Your task to perform on an android device: What is the news today? Image 0: 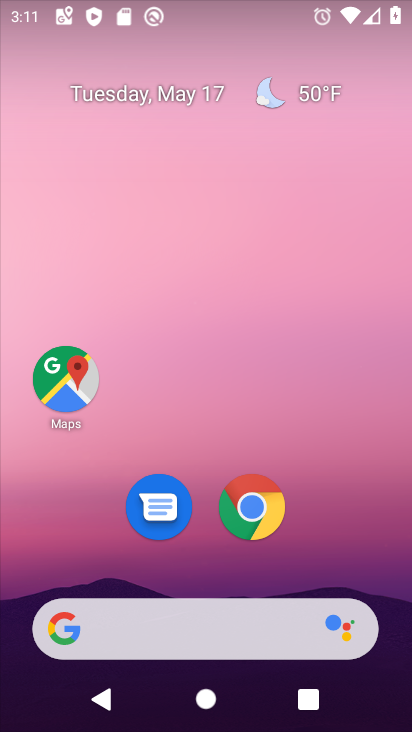
Step 0: drag from (341, 522) to (206, 18)
Your task to perform on an android device: What is the news today? Image 1: 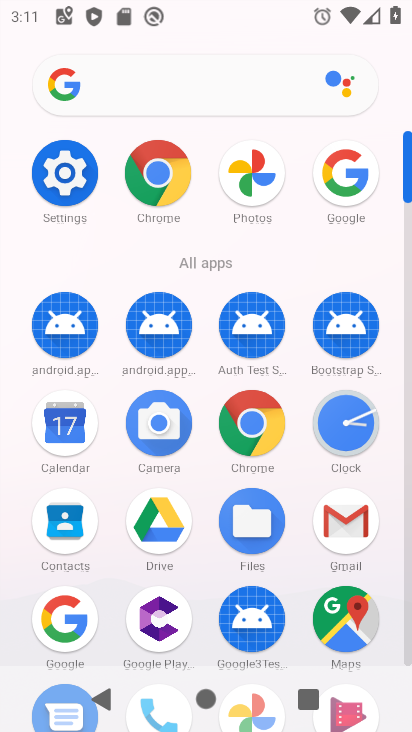
Step 1: click (68, 614)
Your task to perform on an android device: What is the news today? Image 2: 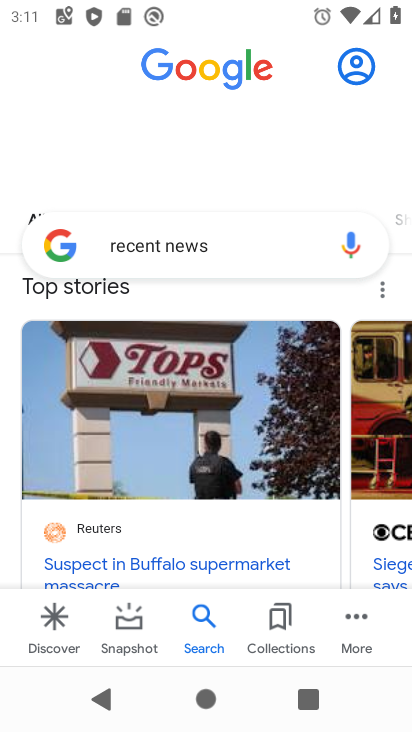
Step 2: click (258, 227)
Your task to perform on an android device: What is the news today? Image 3: 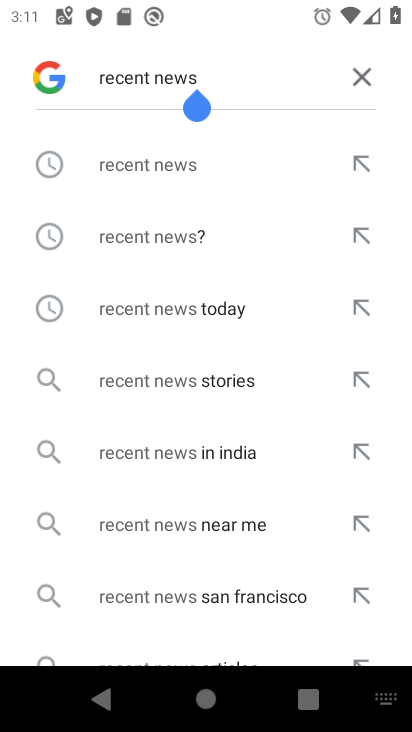
Step 3: click (365, 73)
Your task to perform on an android device: What is the news today? Image 4: 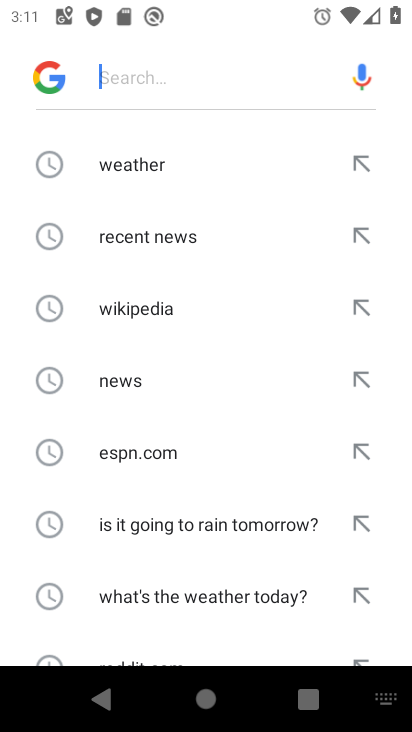
Step 4: click (151, 372)
Your task to perform on an android device: What is the news today? Image 5: 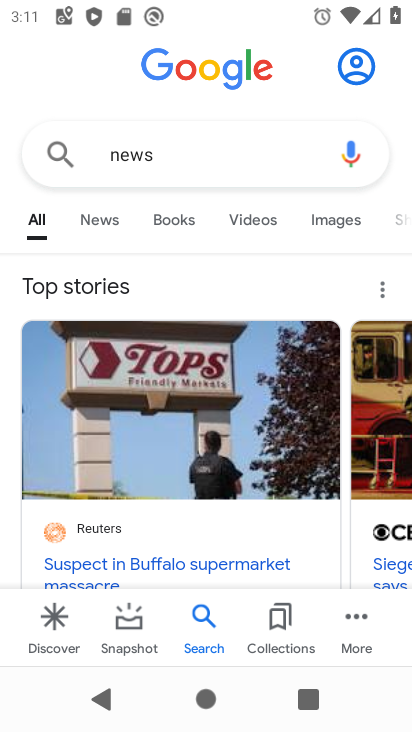
Step 5: task complete